Your task to perform on an android device: install app "Truecaller" Image 0: 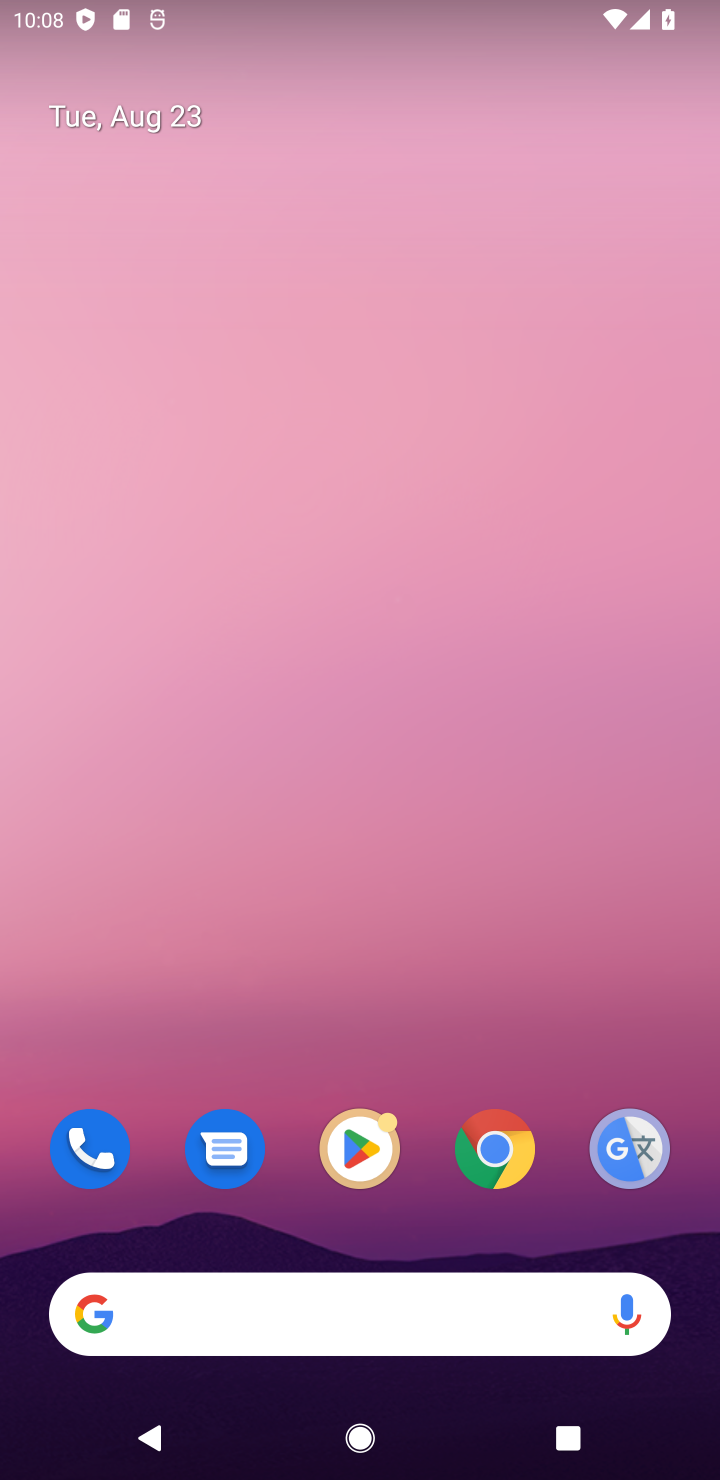
Step 0: click (354, 1157)
Your task to perform on an android device: install app "Truecaller" Image 1: 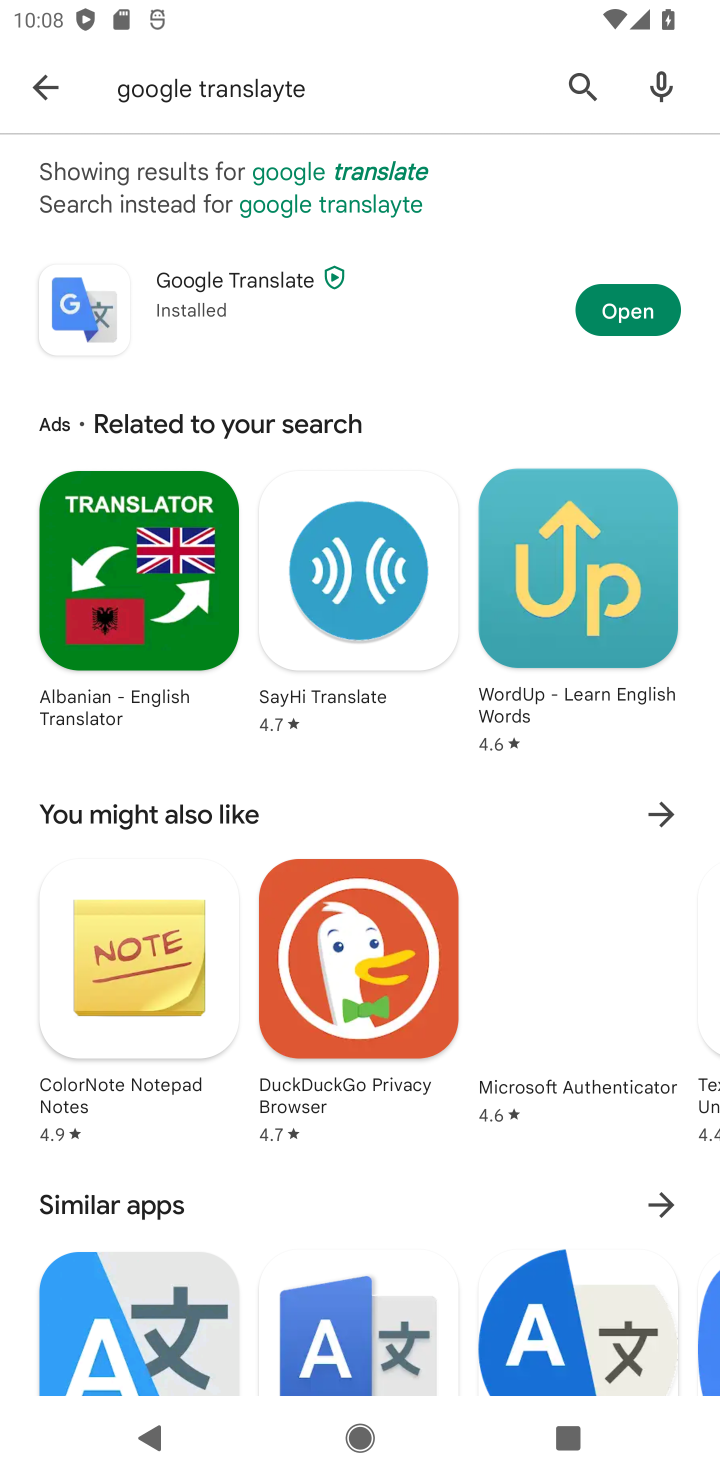
Step 1: click (567, 69)
Your task to perform on an android device: install app "Truecaller" Image 2: 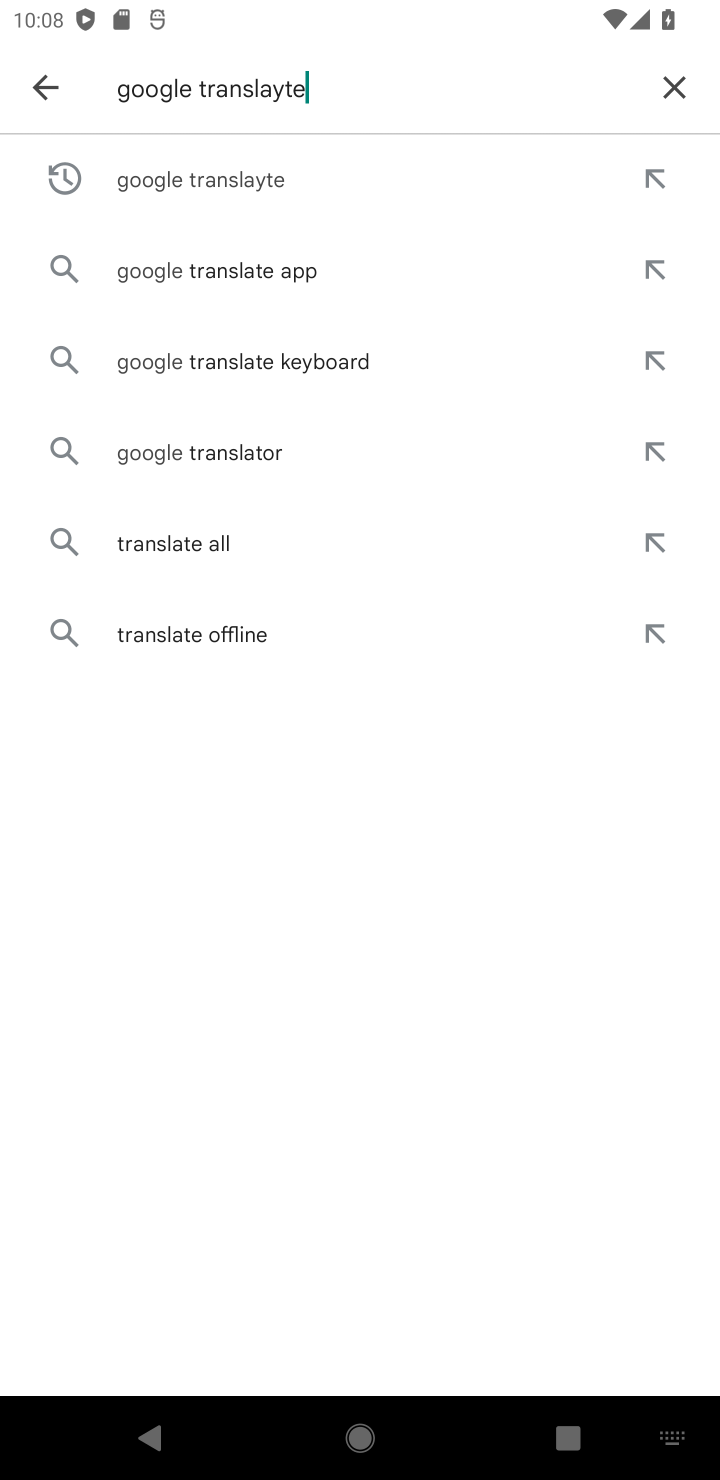
Step 2: click (679, 90)
Your task to perform on an android device: install app "Truecaller" Image 3: 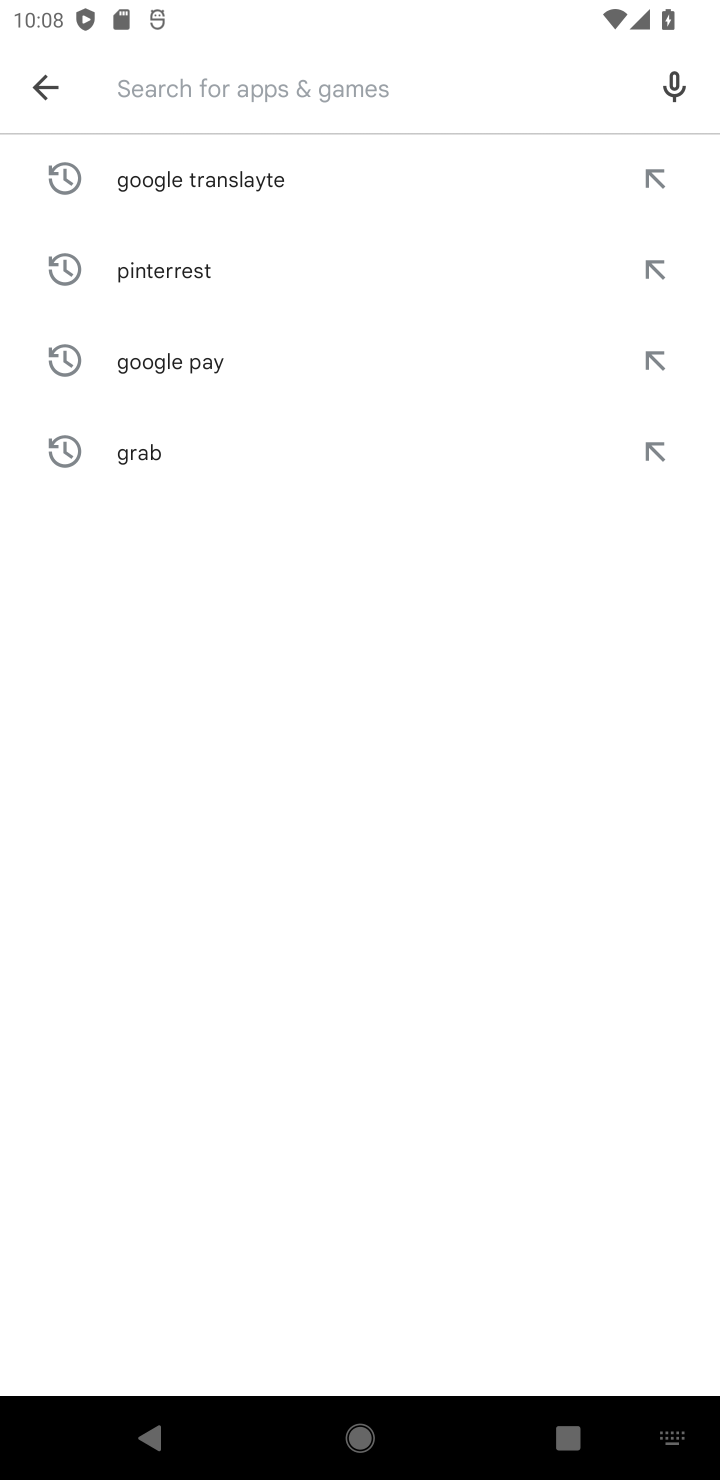
Step 3: type "truecaller"
Your task to perform on an android device: install app "Truecaller" Image 4: 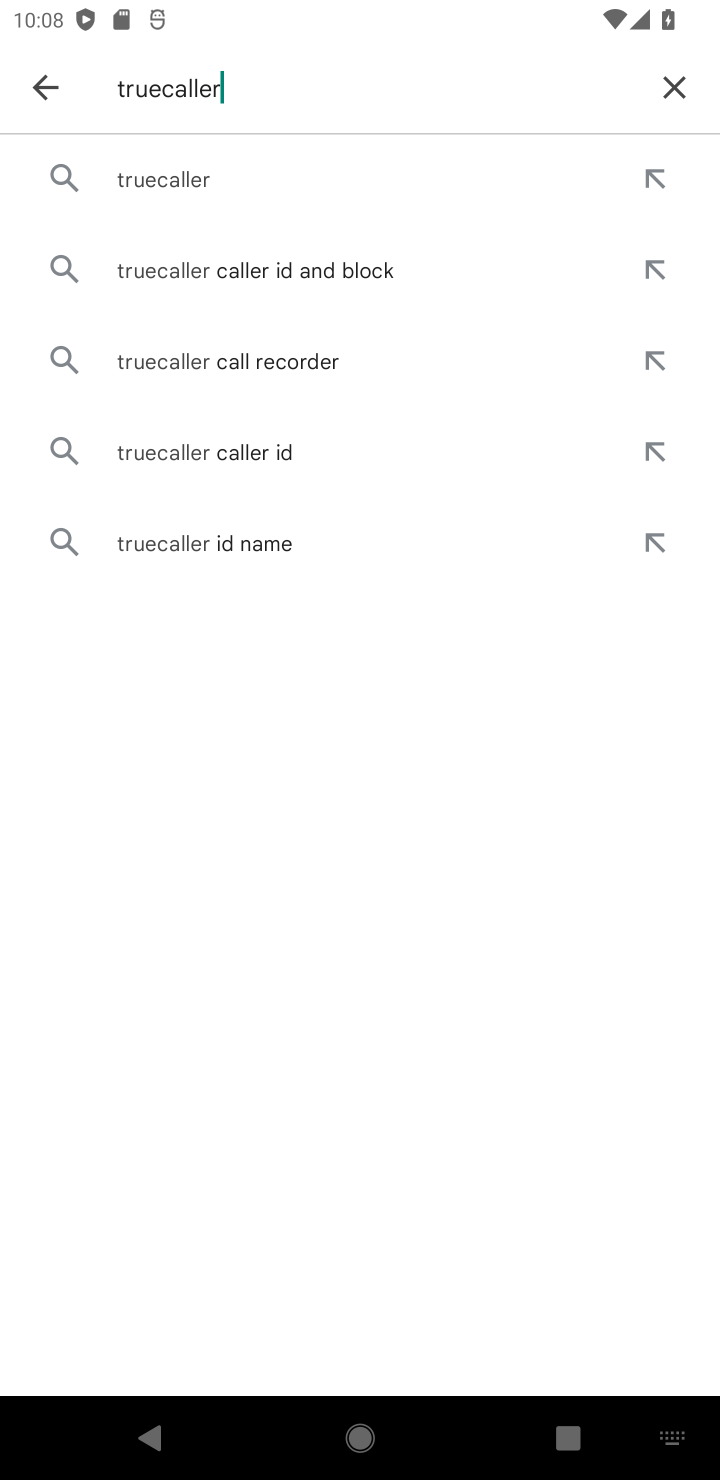
Step 4: click (191, 202)
Your task to perform on an android device: install app "Truecaller" Image 5: 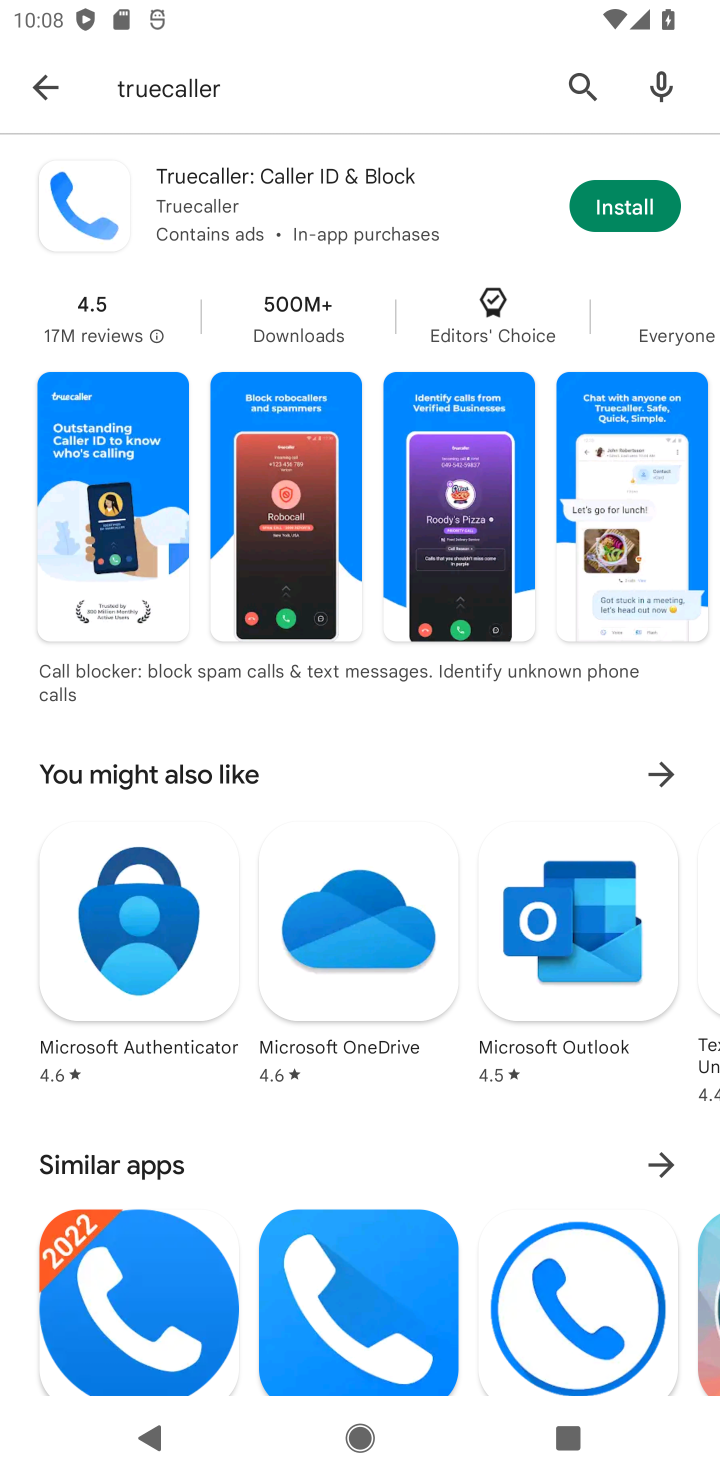
Step 5: click (626, 205)
Your task to perform on an android device: install app "Truecaller" Image 6: 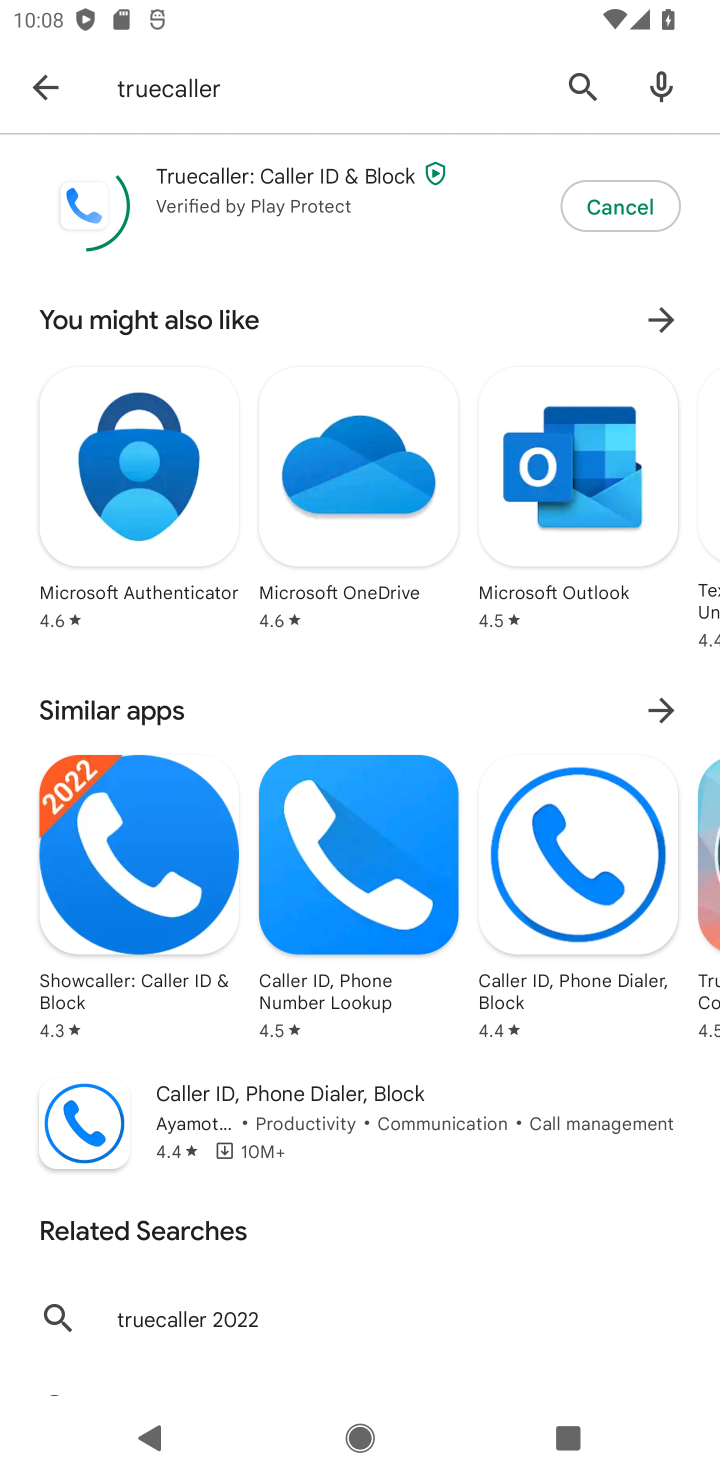
Step 6: task complete